Your task to perform on an android device: Open display settings Image 0: 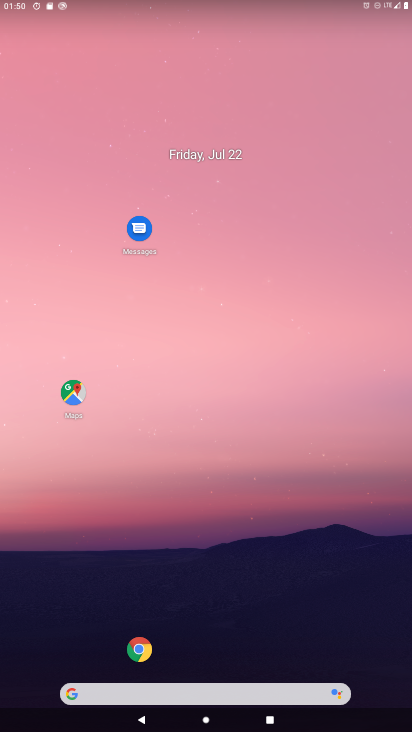
Step 0: drag from (58, 564) to (265, 17)
Your task to perform on an android device: Open display settings Image 1: 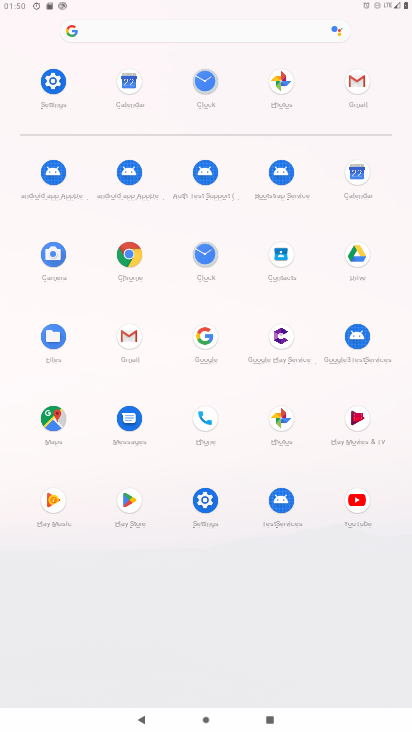
Step 1: click (211, 512)
Your task to perform on an android device: Open display settings Image 2: 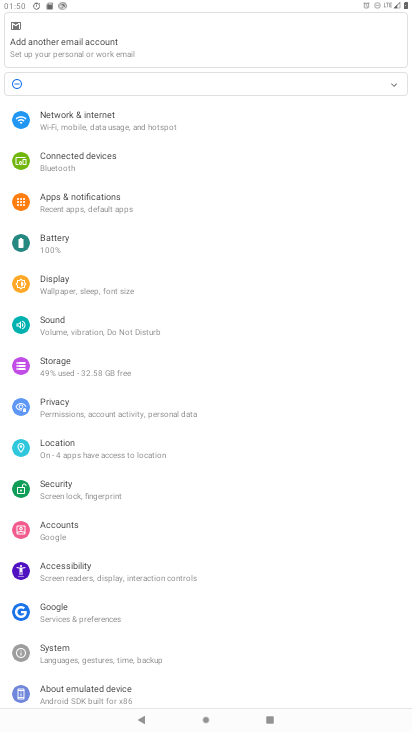
Step 2: click (79, 277)
Your task to perform on an android device: Open display settings Image 3: 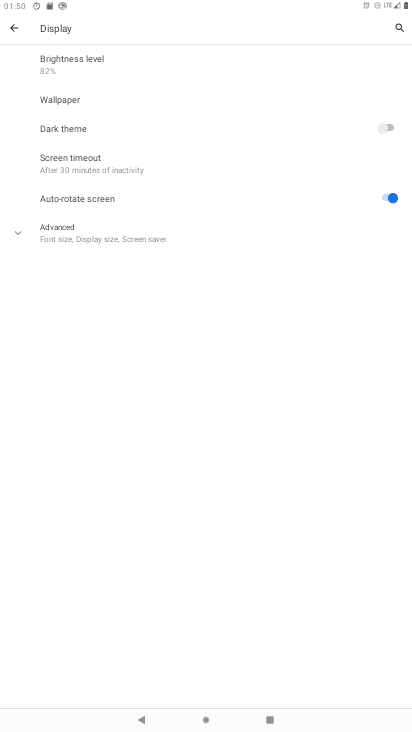
Step 3: task complete